Your task to perform on an android device: change the clock display to show seconds Image 0: 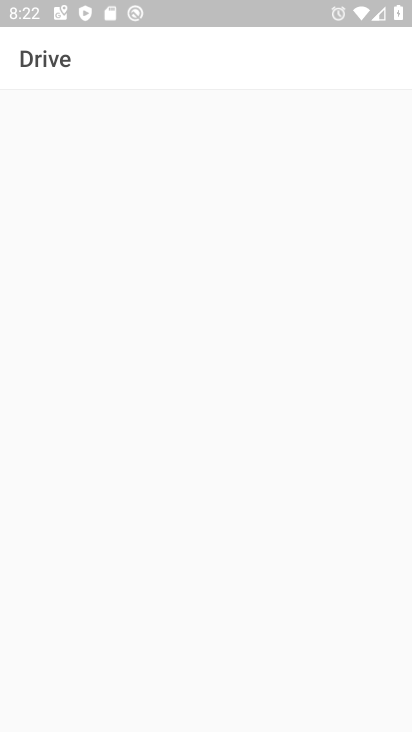
Step 0: press back button
Your task to perform on an android device: change the clock display to show seconds Image 1: 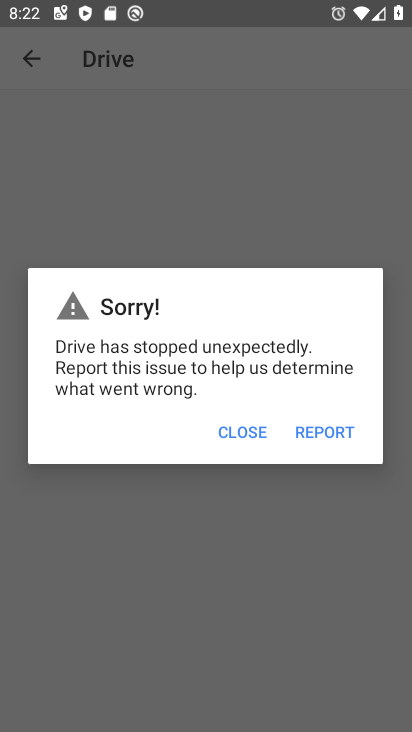
Step 1: press home button
Your task to perform on an android device: change the clock display to show seconds Image 2: 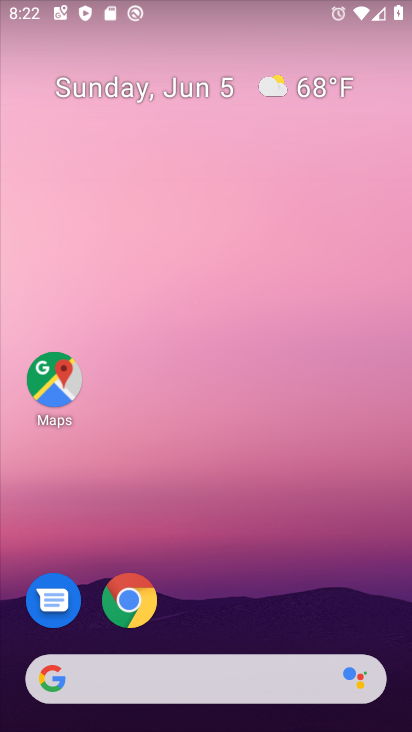
Step 2: drag from (392, 636) to (217, 46)
Your task to perform on an android device: change the clock display to show seconds Image 3: 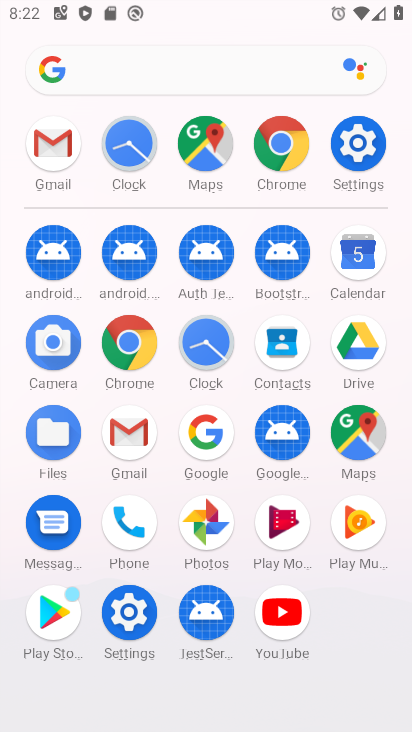
Step 3: click (206, 336)
Your task to perform on an android device: change the clock display to show seconds Image 4: 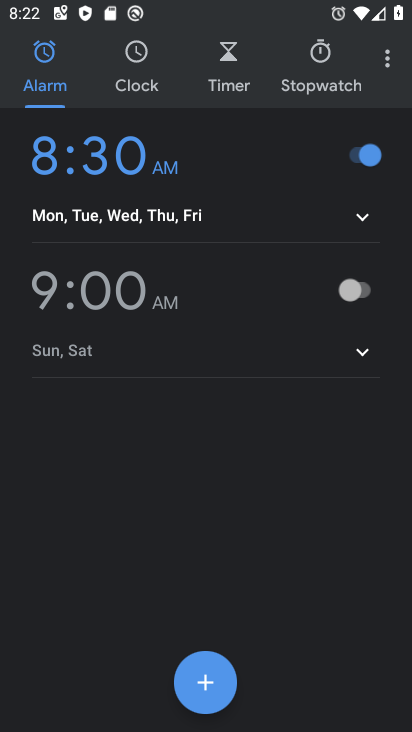
Step 4: click (387, 53)
Your task to perform on an android device: change the clock display to show seconds Image 5: 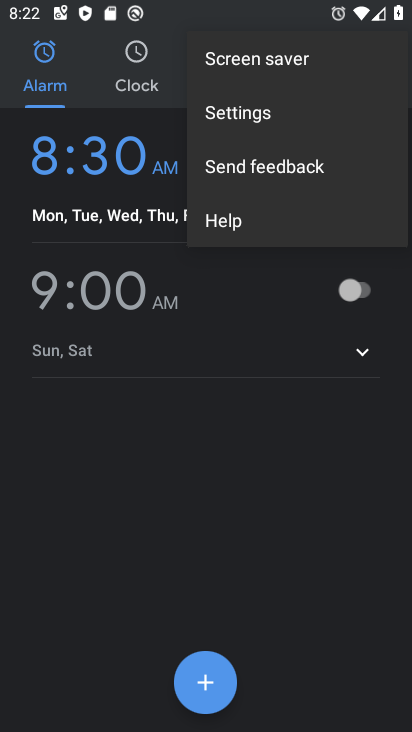
Step 5: click (256, 126)
Your task to perform on an android device: change the clock display to show seconds Image 6: 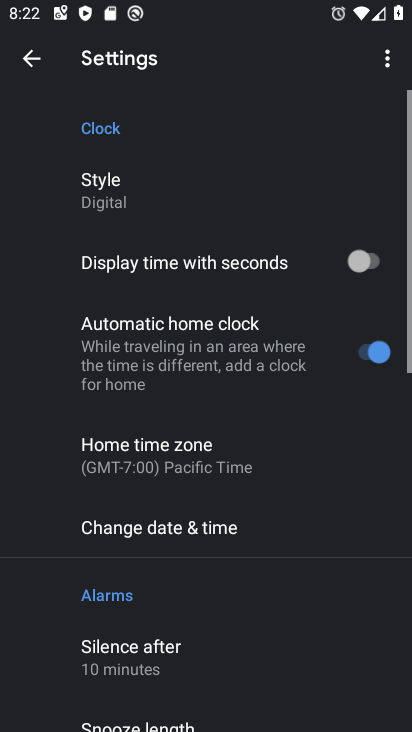
Step 6: click (365, 247)
Your task to perform on an android device: change the clock display to show seconds Image 7: 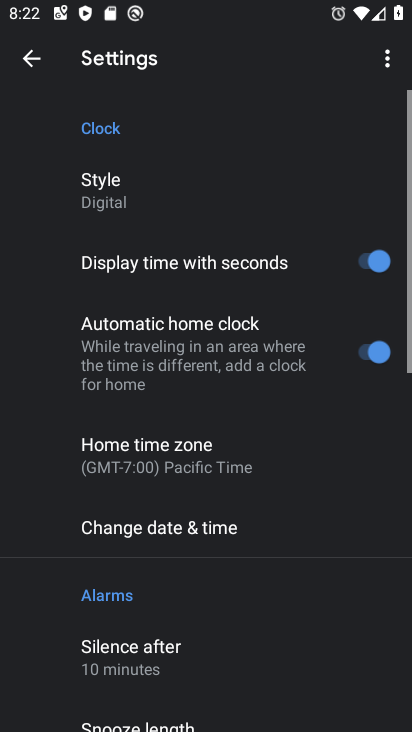
Step 7: task complete